Your task to perform on an android device: Open the phone app and click the voicemail tab. Image 0: 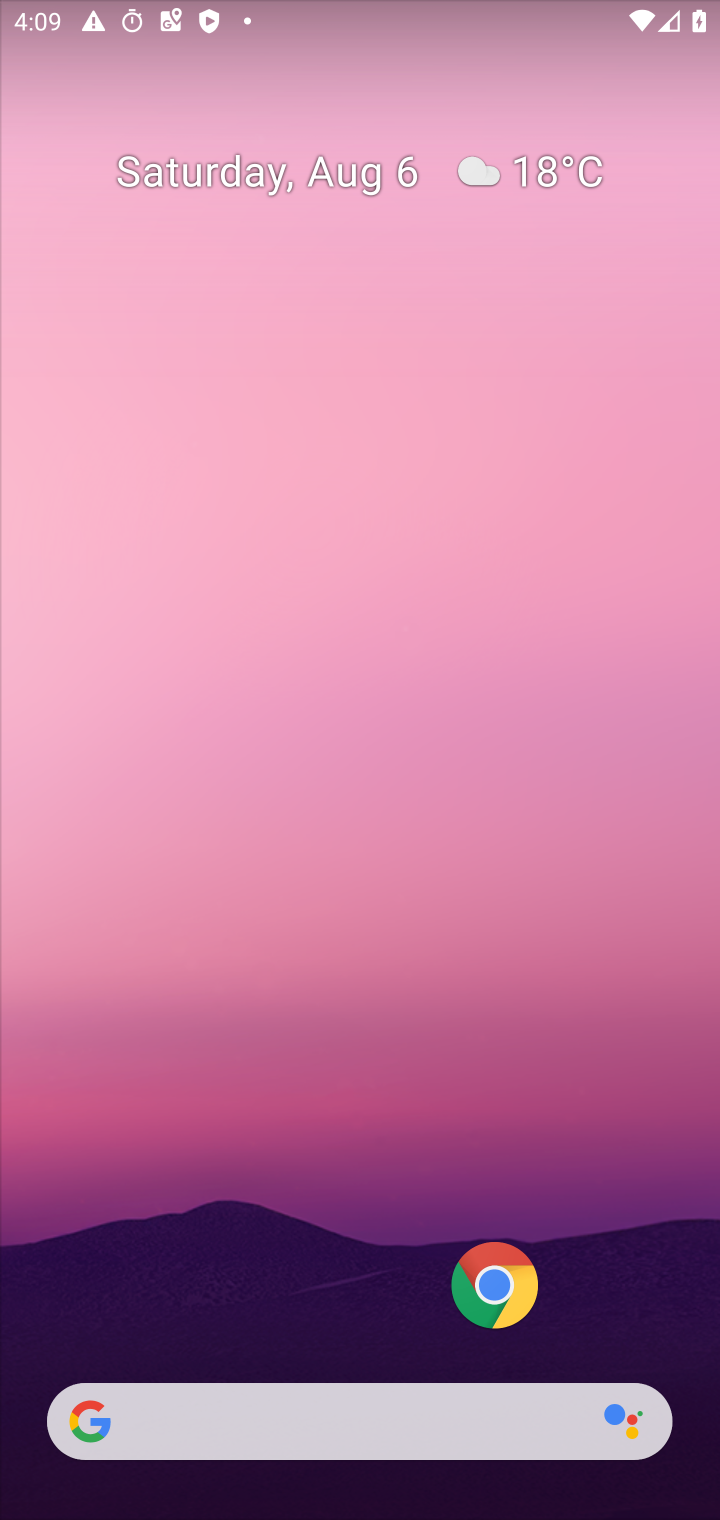
Step 0: press home button
Your task to perform on an android device: Open the phone app and click the voicemail tab. Image 1: 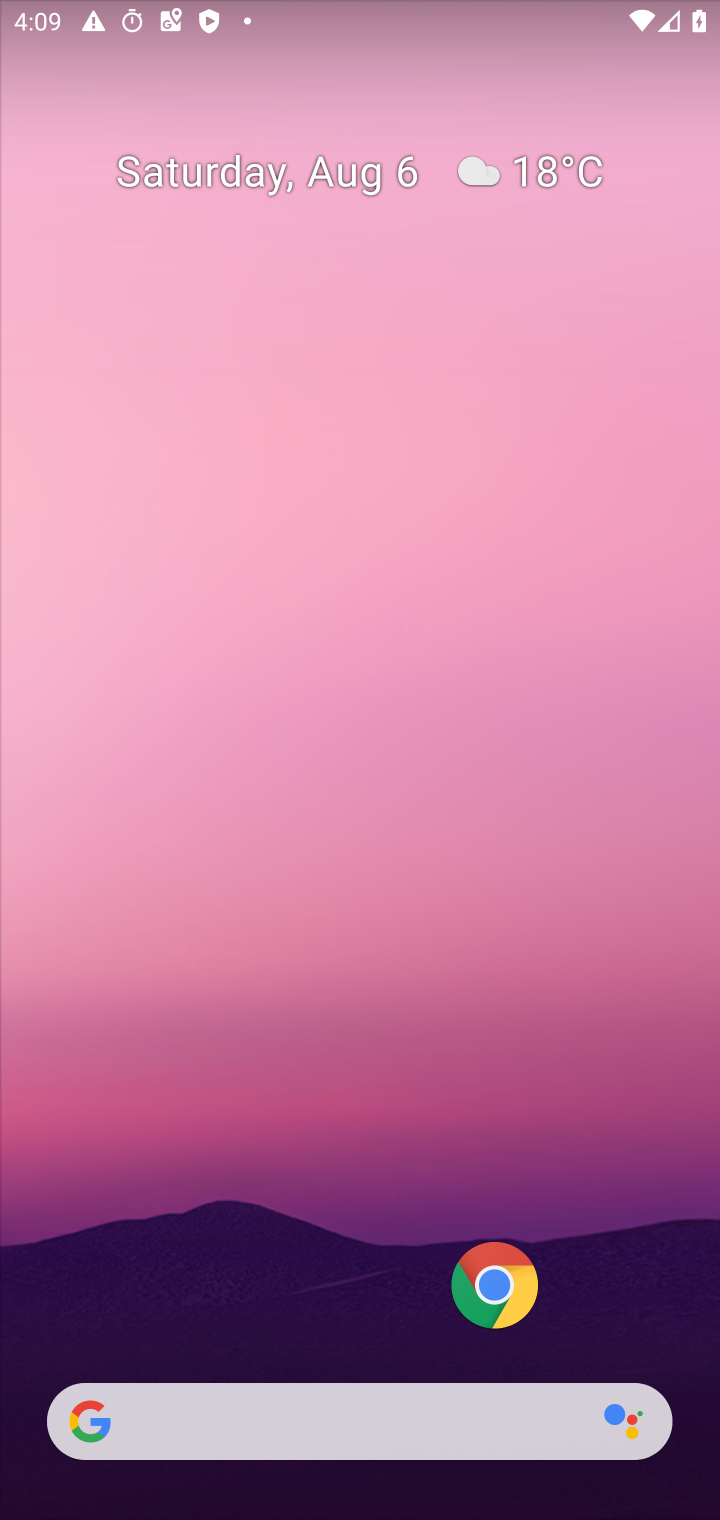
Step 1: drag from (374, 1345) to (387, 147)
Your task to perform on an android device: Open the phone app and click the voicemail tab. Image 2: 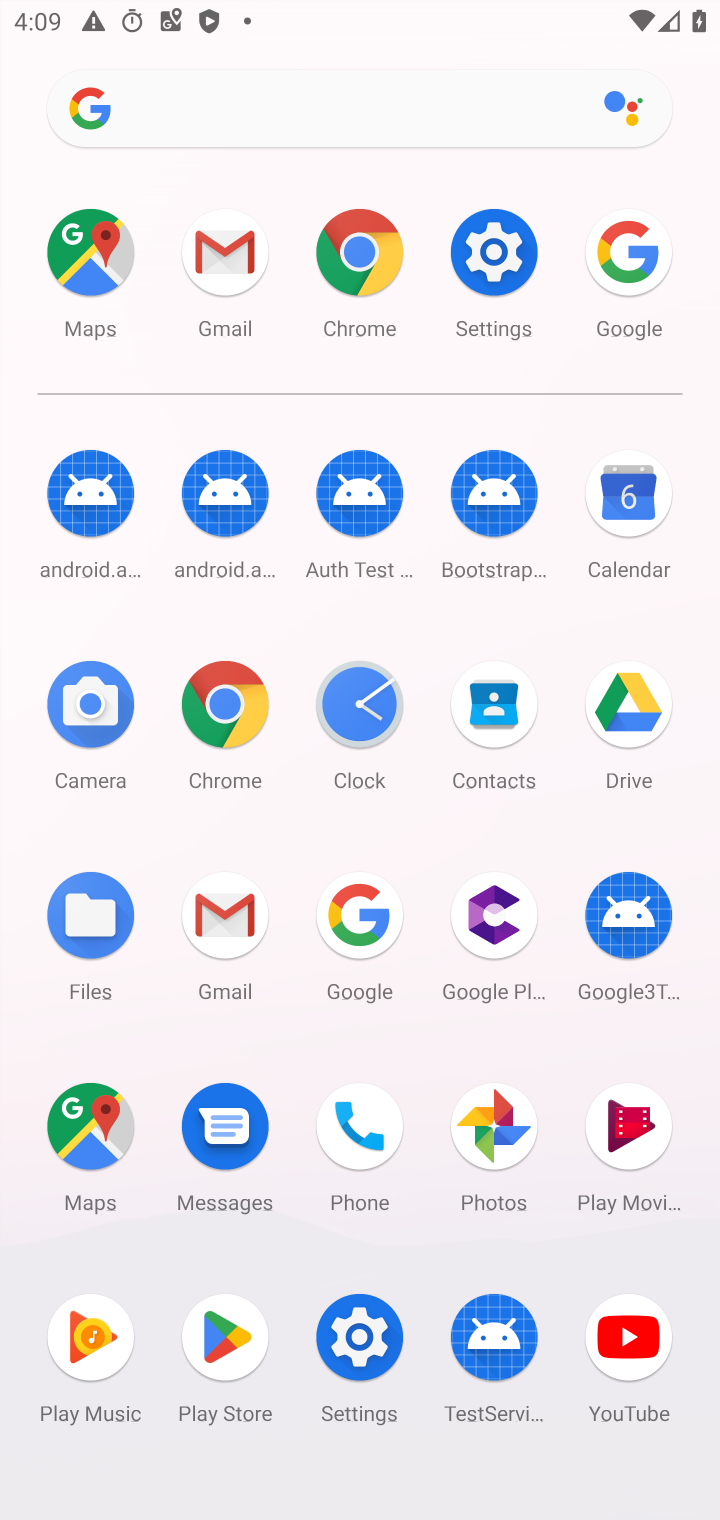
Step 2: click (354, 1273)
Your task to perform on an android device: Open the phone app and click the voicemail tab. Image 3: 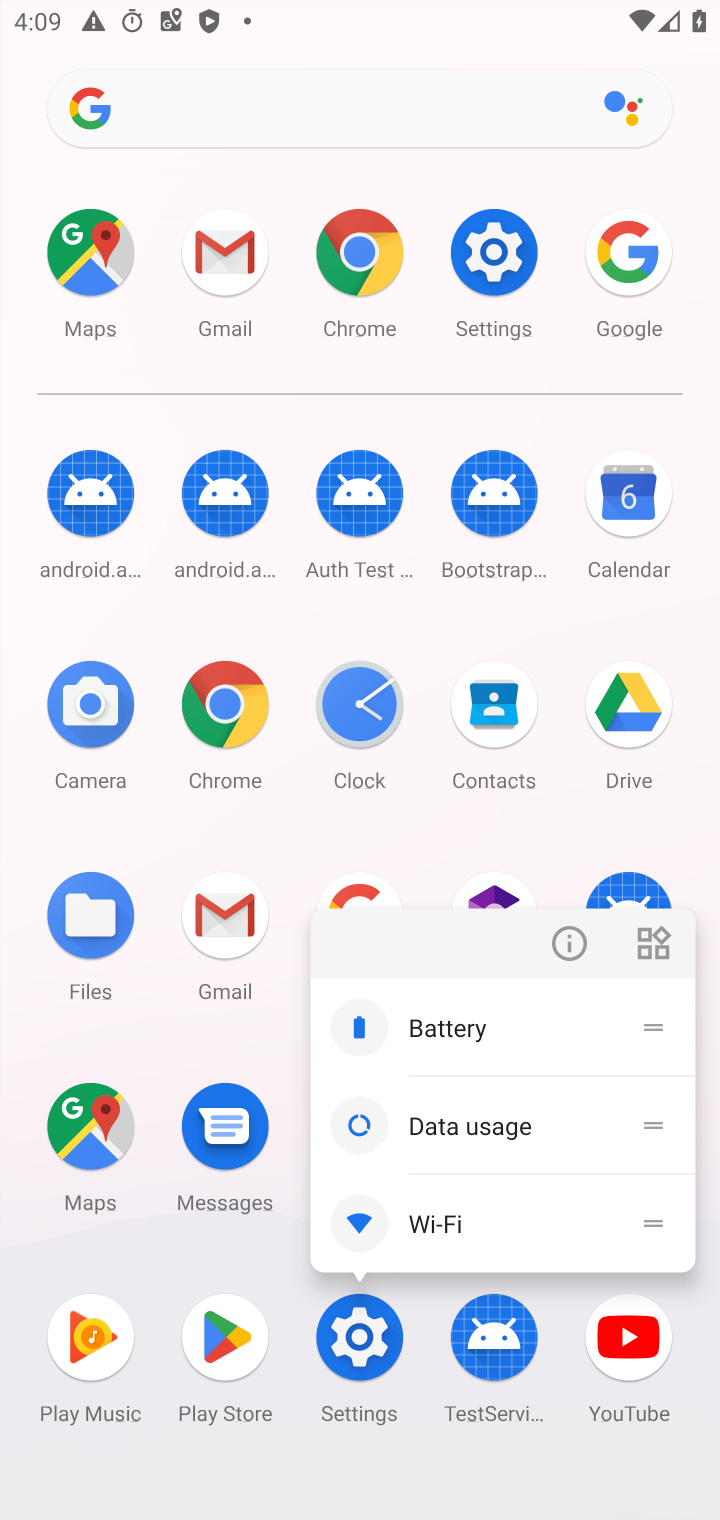
Step 3: click (257, 1246)
Your task to perform on an android device: Open the phone app and click the voicemail tab. Image 4: 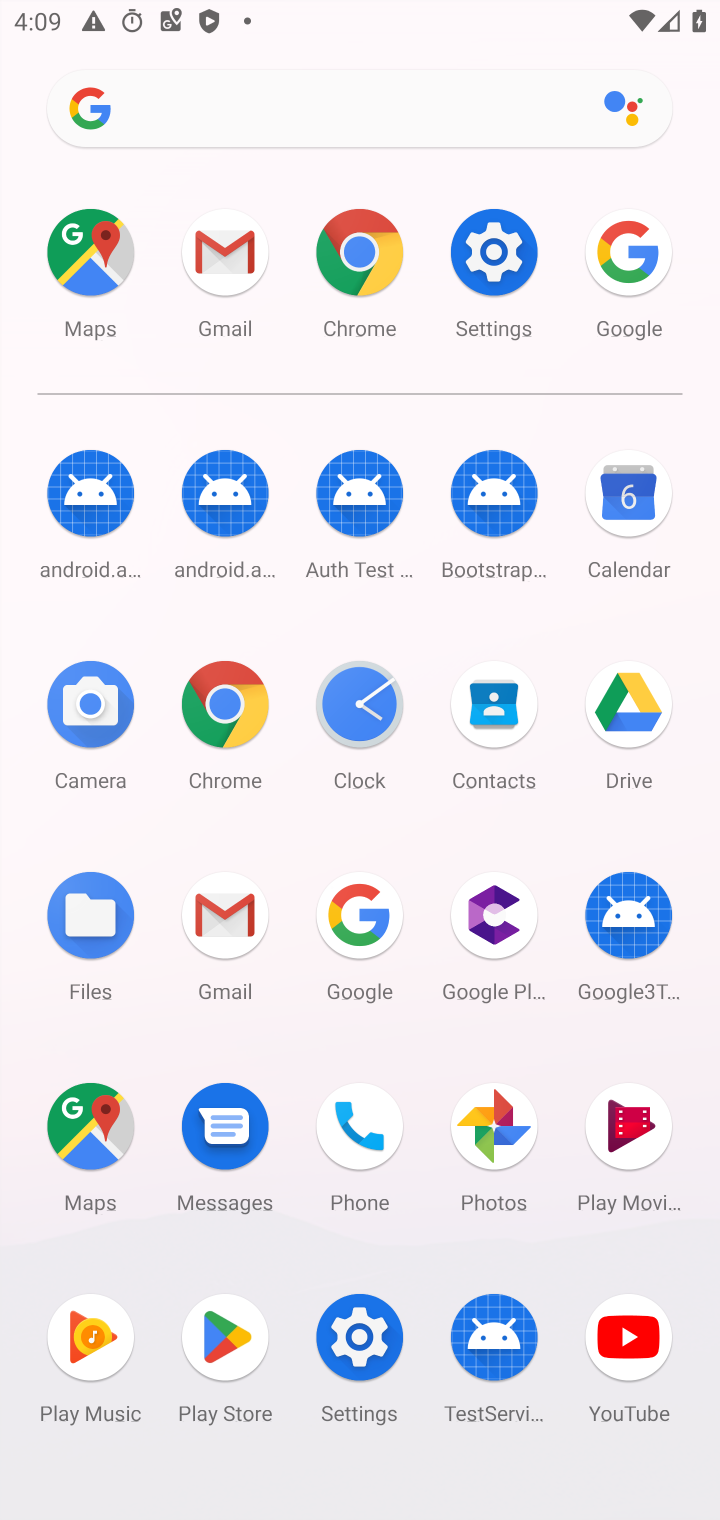
Step 4: click (358, 1134)
Your task to perform on an android device: Open the phone app and click the voicemail tab. Image 5: 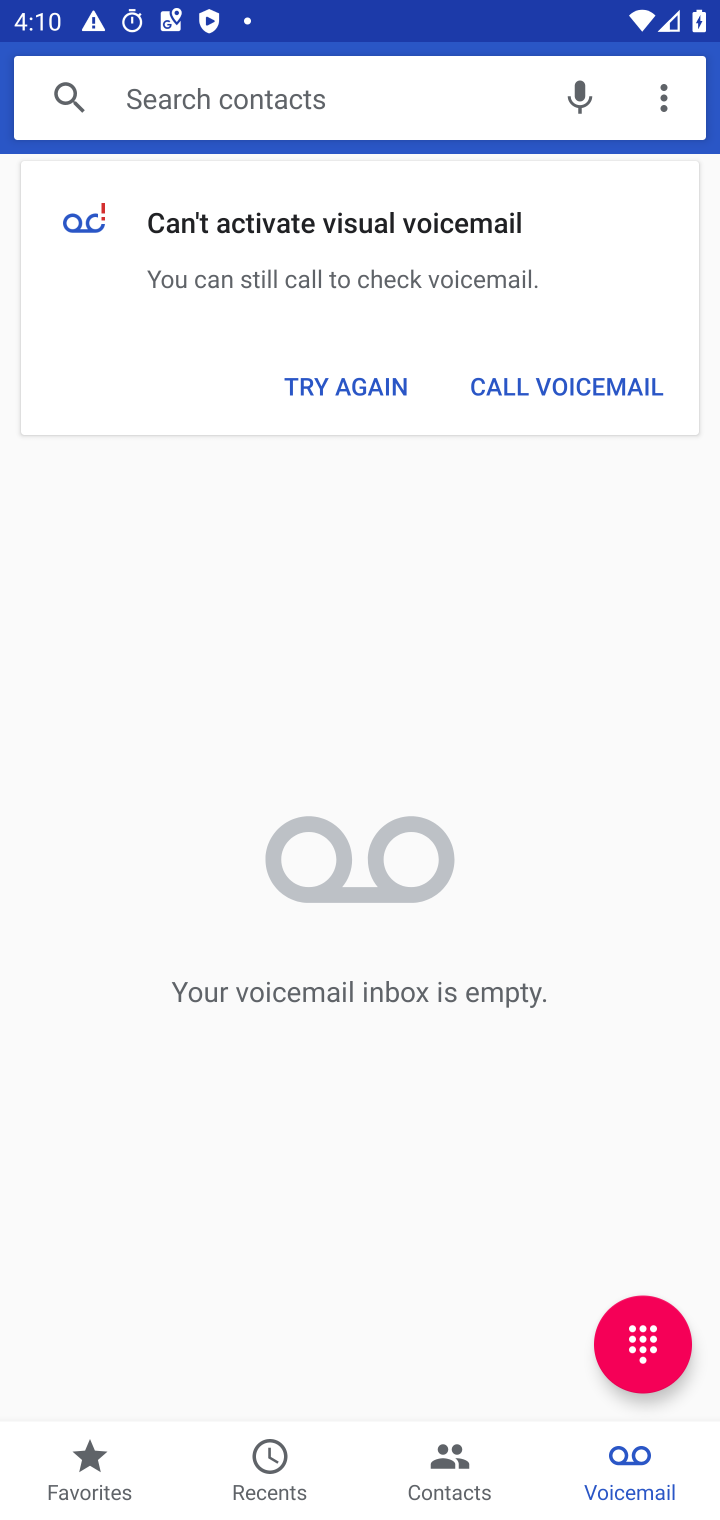
Step 5: task complete